Your task to perform on an android device: turn on the 12-hour format for clock Image 0: 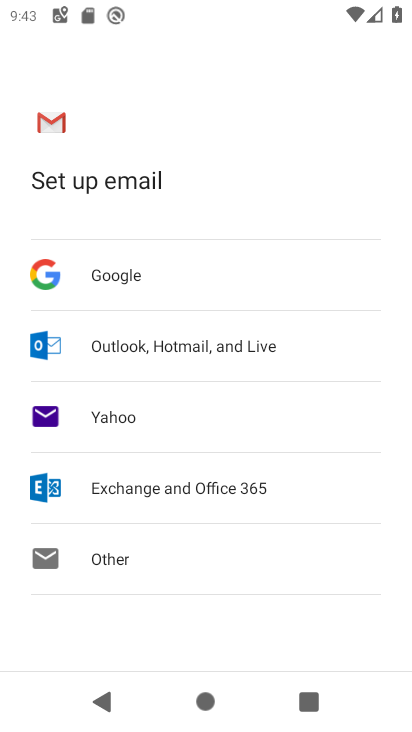
Step 0: press home button
Your task to perform on an android device: turn on the 12-hour format for clock Image 1: 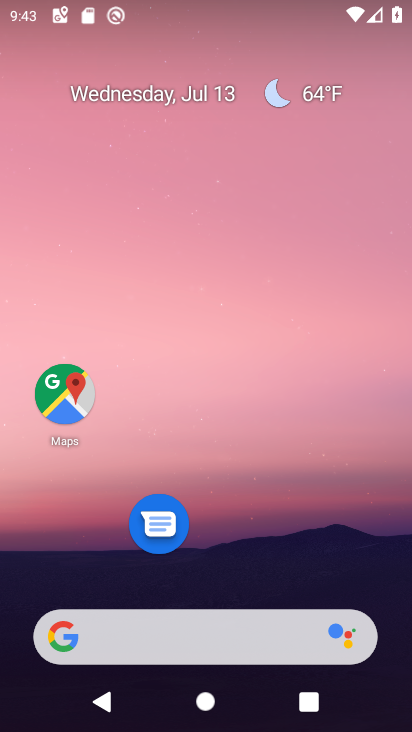
Step 1: drag from (244, 566) to (226, 25)
Your task to perform on an android device: turn on the 12-hour format for clock Image 2: 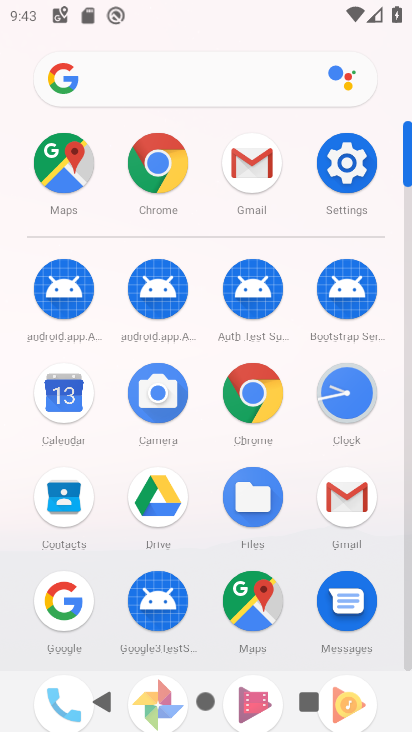
Step 2: click (358, 393)
Your task to perform on an android device: turn on the 12-hour format for clock Image 3: 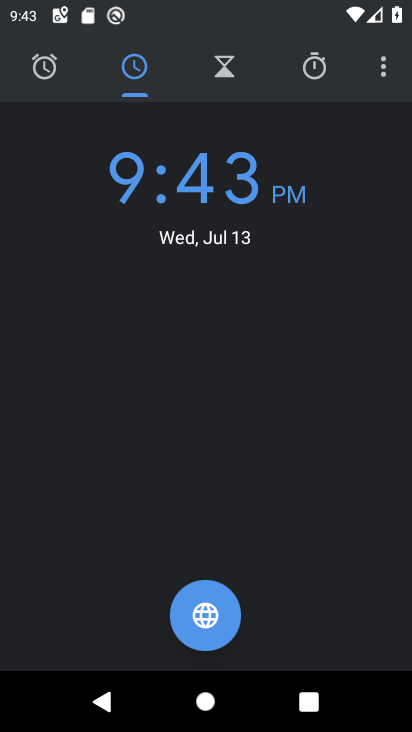
Step 3: click (384, 62)
Your task to perform on an android device: turn on the 12-hour format for clock Image 4: 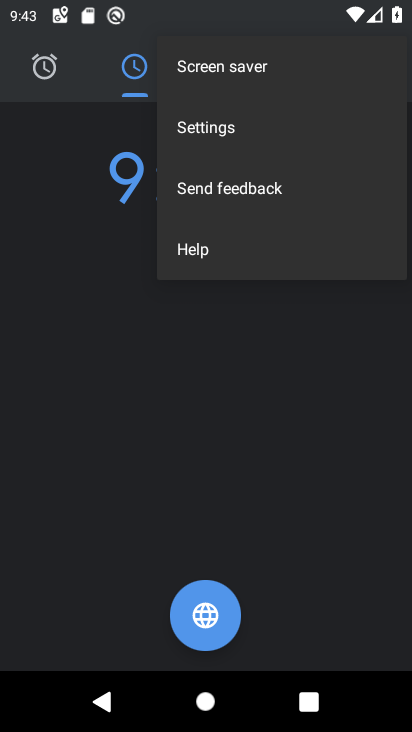
Step 4: click (239, 133)
Your task to perform on an android device: turn on the 12-hour format for clock Image 5: 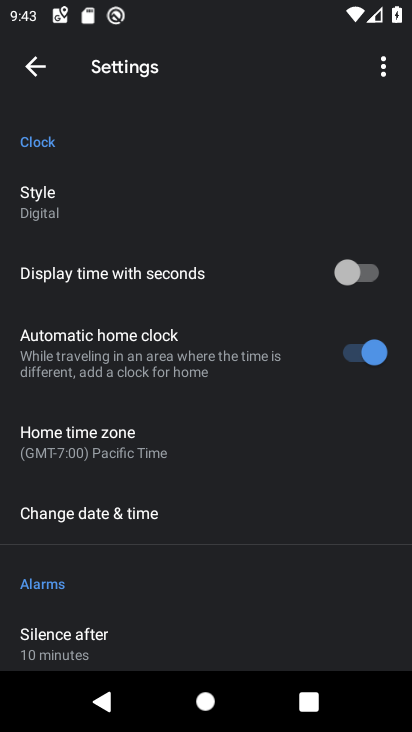
Step 5: click (118, 524)
Your task to perform on an android device: turn on the 12-hour format for clock Image 6: 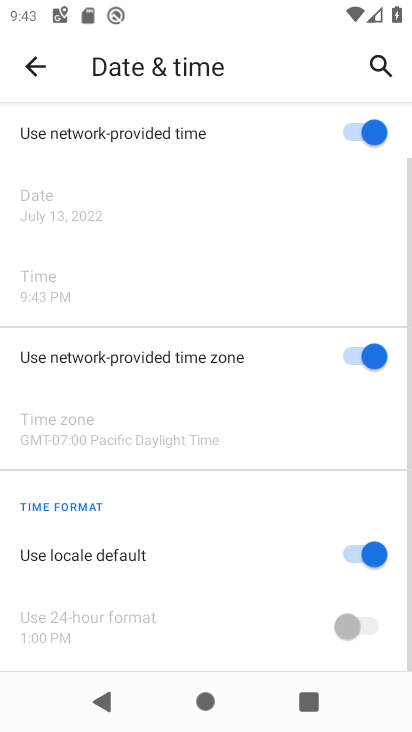
Step 6: task complete